Your task to perform on an android device: Open calendar and show me the first week of next month Image 0: 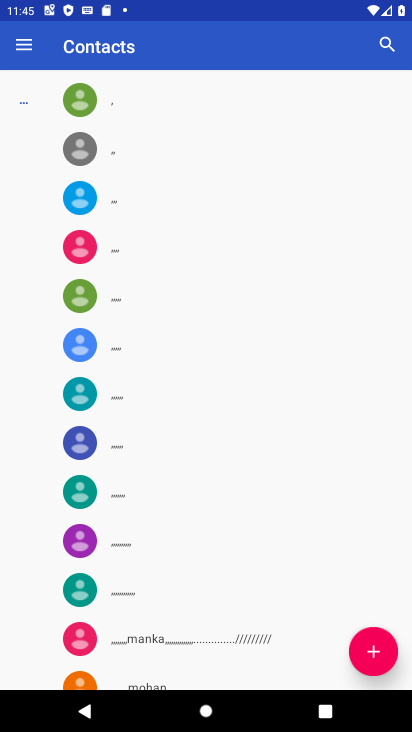
Step 0: press home button
Your task to perform on an android device: Open calendar and show me the first week of next month Image 1: 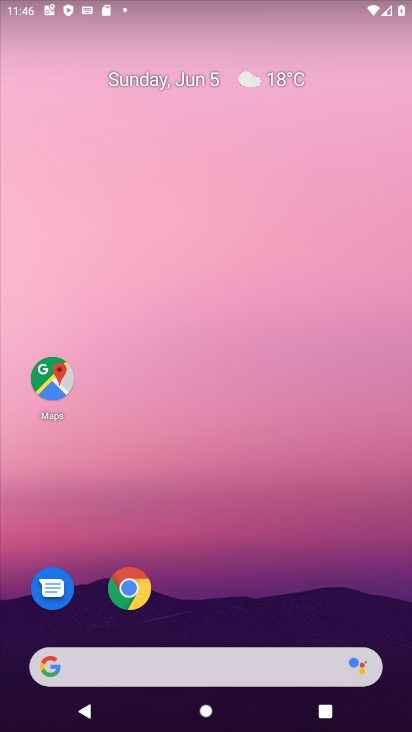
Step 1: drag from (252, 627) to (186, 81)
Your task to perform on an android device: Open calendar and show me the first week of next month Image 2: 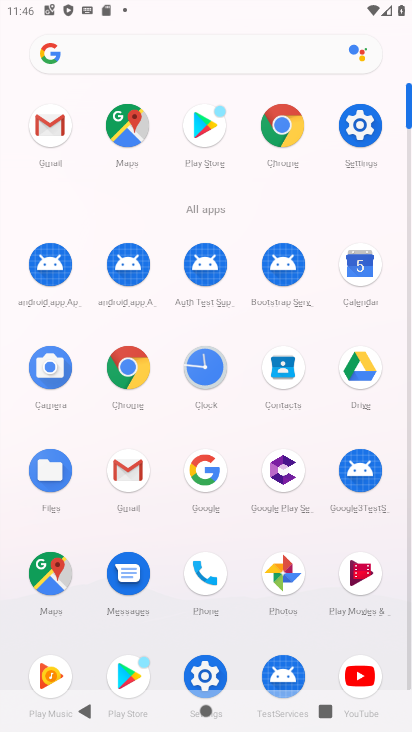
Step 2: click (358, 267)
Your task to perform on an android device: Open calendar and show me the first week of next month Image 3: 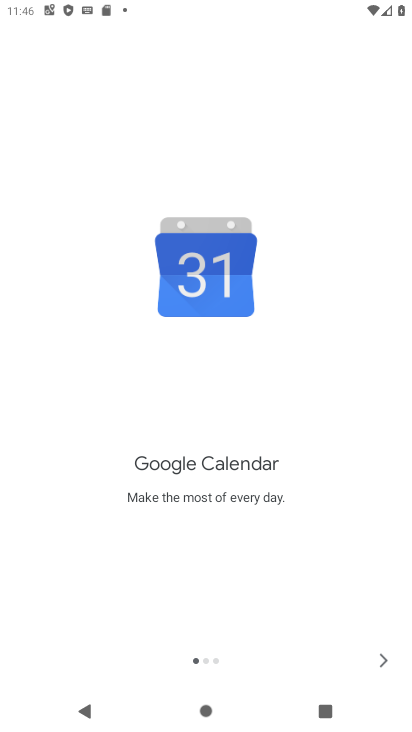
Step 3: click (387, 666)
Your task to perform on an android device: Open calendar and show me the first week of next month Image 4: 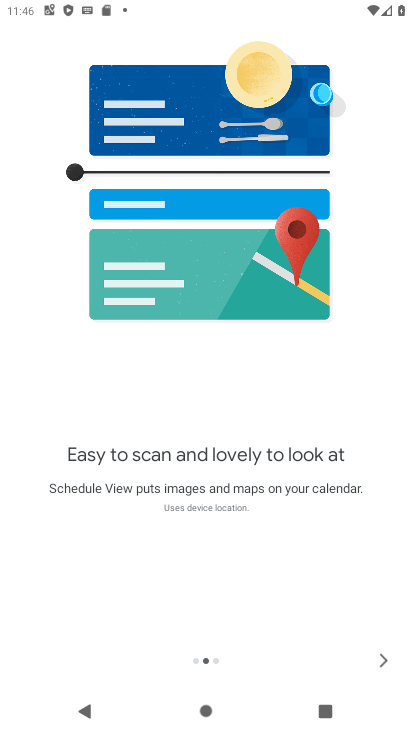
Step 4: click (387, 666)
Your task to perform on an android device: Open calendar and show me the first week of next month Image 5: 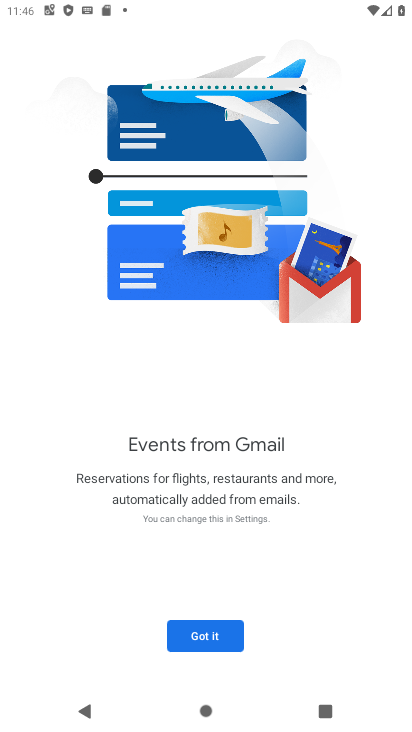
Step 5: click (211, 631)
Your task to perform on an android device: Open calendar and show me the first week of next month Image 6: 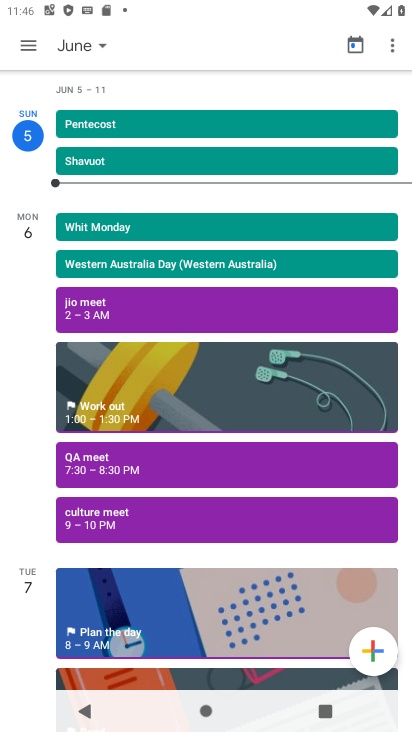
Step 6: click (24, 45)
Your task to perform on an android device: Open calendar and show me the first week of next month Image 7: 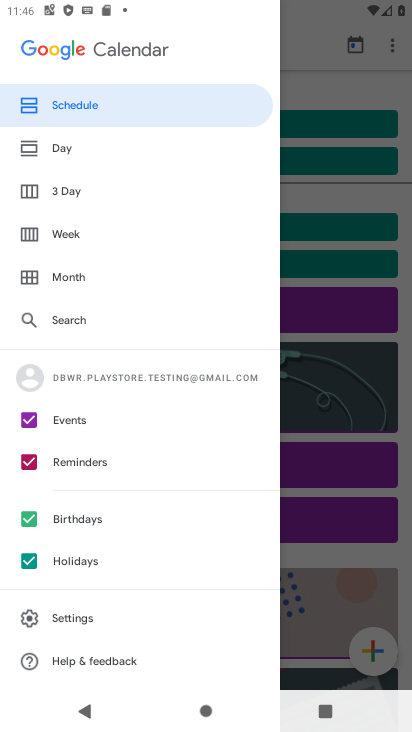
Step 7: click (88, 240)
Your task to perform on an android device: Open calendar and show me the first week of next month Image 8: 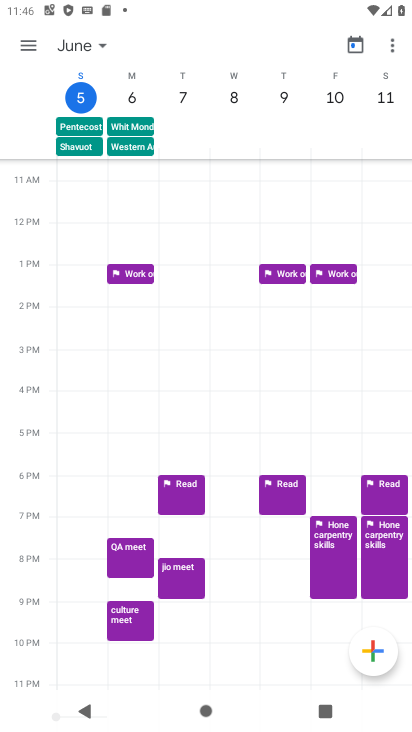
Step 8: click (89, 47)
Your task to perform on an android device: Open calendar and show me the first week of next month Image 9: 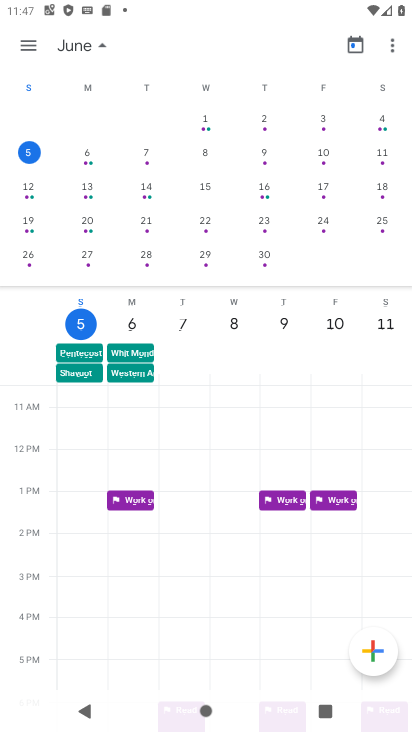
Step 9: drag from (383, 239) to (67, 205)
Your task to perform on an android device: Open calendar and show me the first week of next month Image 10: 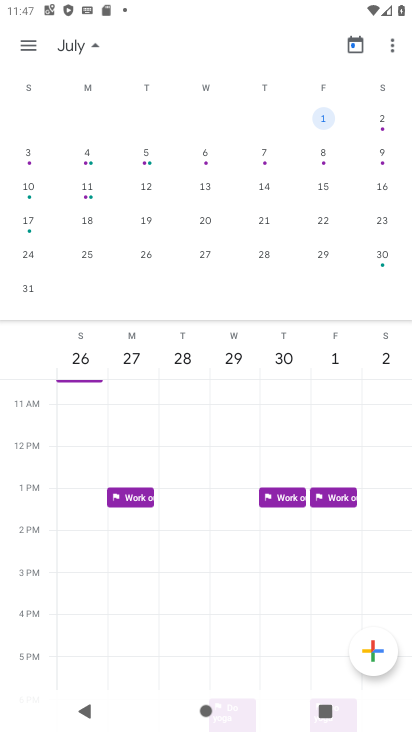
Step 10: click (323, 118)
Your task to perform on an android device: Open calendar and show me the first week of next month Image 11: 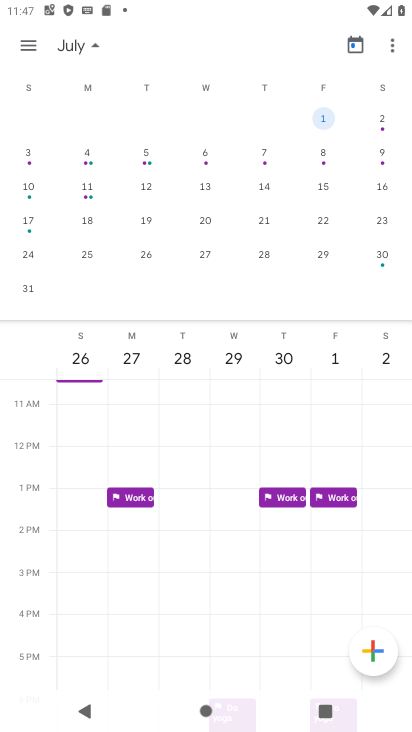
Step 11: click (265, 164)
Your task to perform on an android device: Open calendar and show me the first week of next month Image 12: 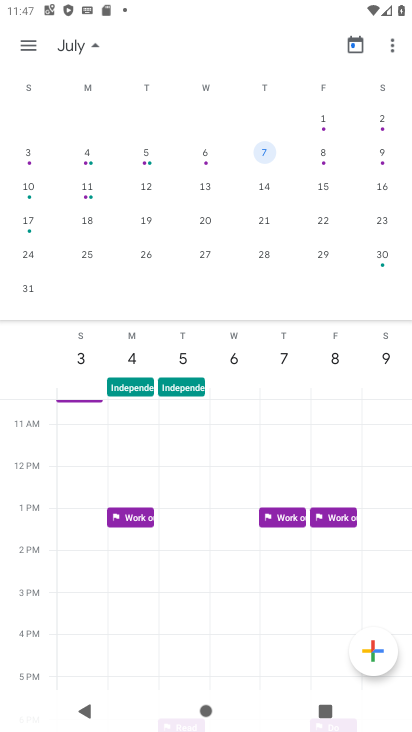
Step 12: task complete